Your task to perform on an android device: Open Youtube and go to "Your channel" Image 0: 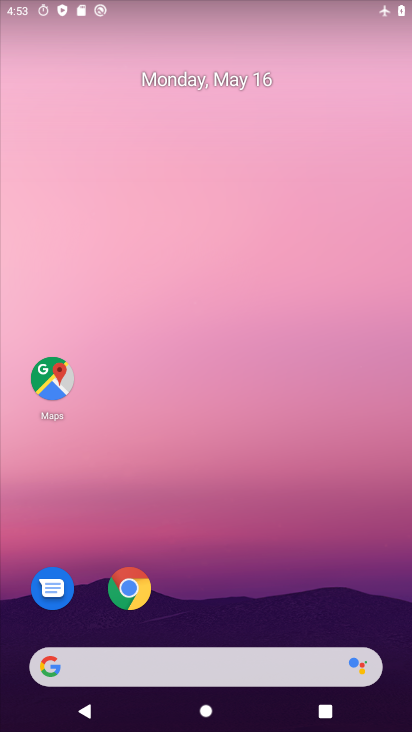
Step 0: drag from (302, 634) to (299, 199)
Your task to perform on an android device: Open Youtube and go to "Your channel" Image 1: 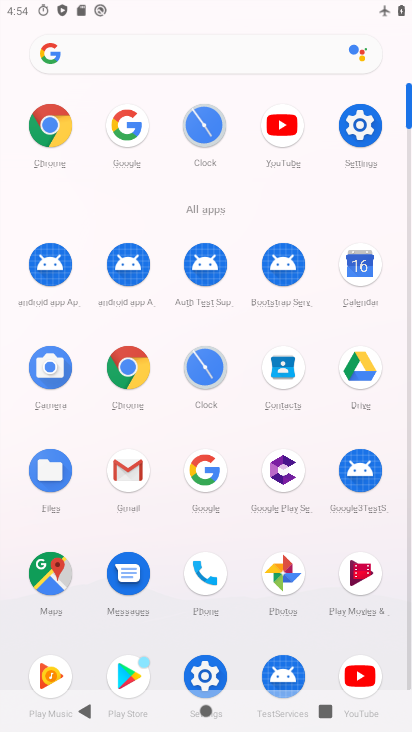
Step 1: click (356, 670)
Your task to perform on an android device: Open Youtube and go to "Your channel" Image 2: 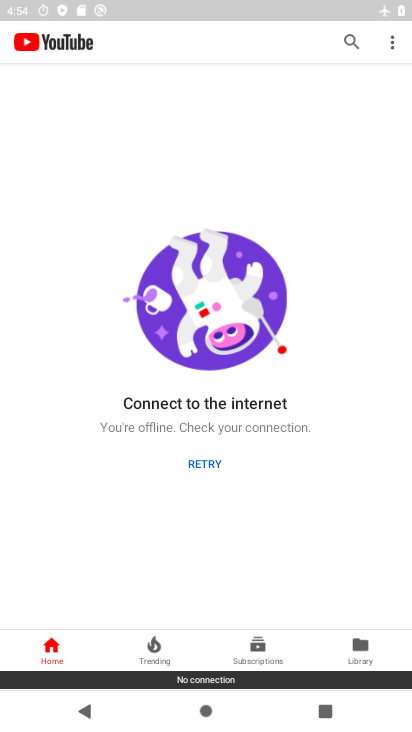
Step 2: task complete